Your task to perform on an android device: uninstall "Firefox Browser" Image 0: 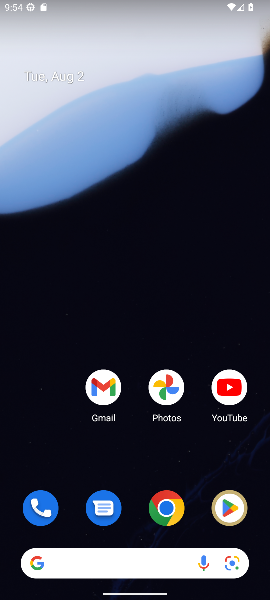
Step 0: click (223, 510)
Your task to perform on an android device: uninstall "Firefox Browser" Image 1: 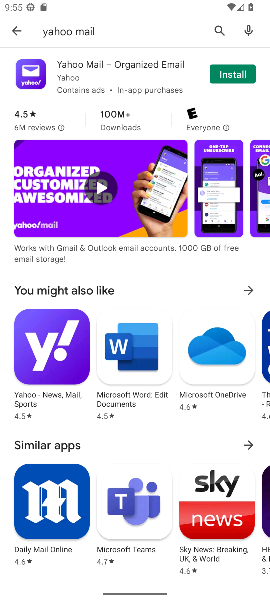
Step 1: click (219, 29)
Your task to perform on an android device: uninstall "Firefox Browser" Image 2: 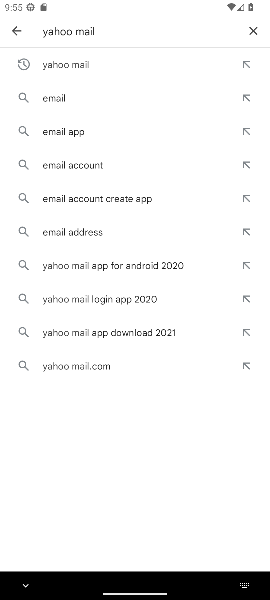
Step 2: click (254, 33)
Your task to perform on an android device: uninstall "Firefox Browser" Image 3: 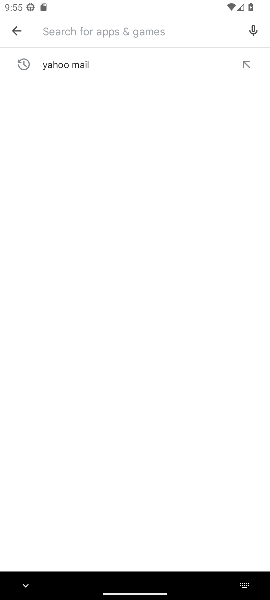
Step 3: type "Firefox Browser"
Your task to perform on an android device: uninstall "Firefox Browser" Image 4: 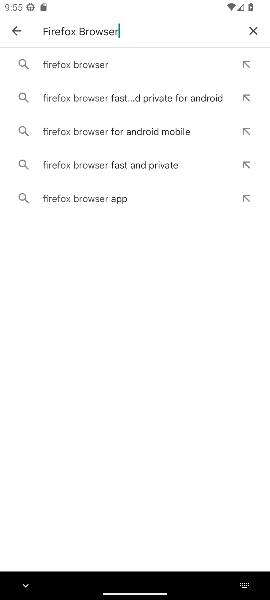
Step 4: click (79, 65)
Your task to perform on an android device: uninstall "Firefox Browser" Image 5: 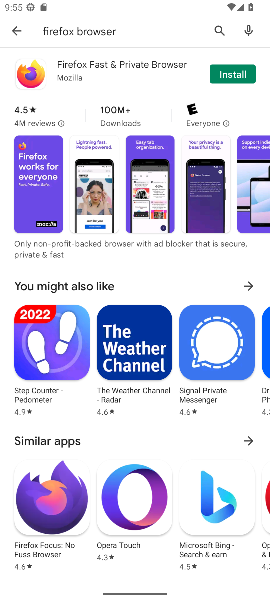
Step 5: task complete